Your task to perform on an android device: empty trash in google photos Image 0: 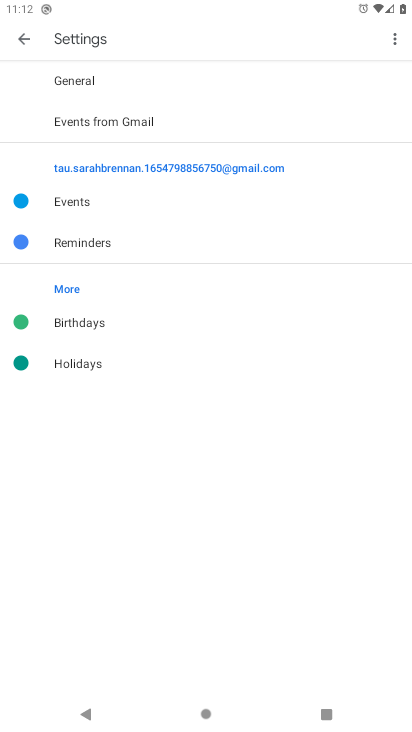
Step 0: press home button
Your task to perform on an android device: empty trash in google photos Image 1: 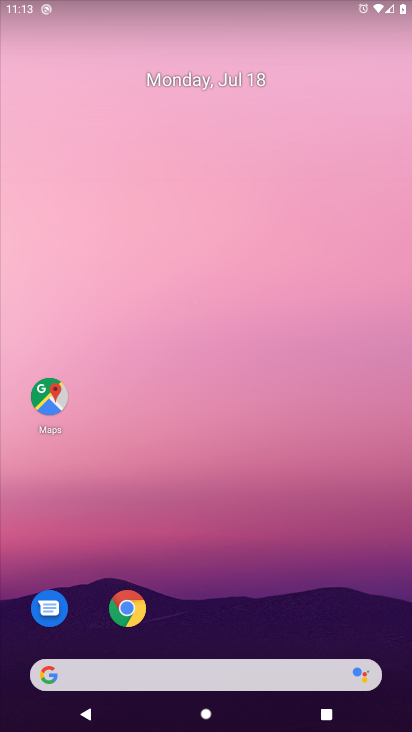
Step 1: drag from (71, 683) to (237, 13)
Your task to perform on an android device: empty trash in google photos Image 2: 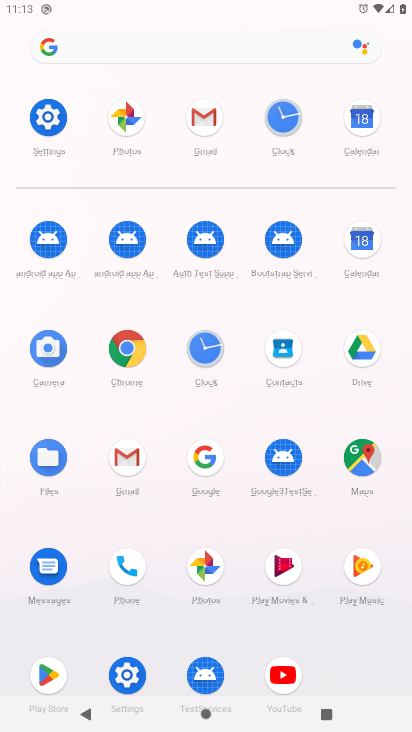
Step 2: drag from (226, 546) to (201, 580)
Your task to perform on an android device: empty trash in google photos Image 3: 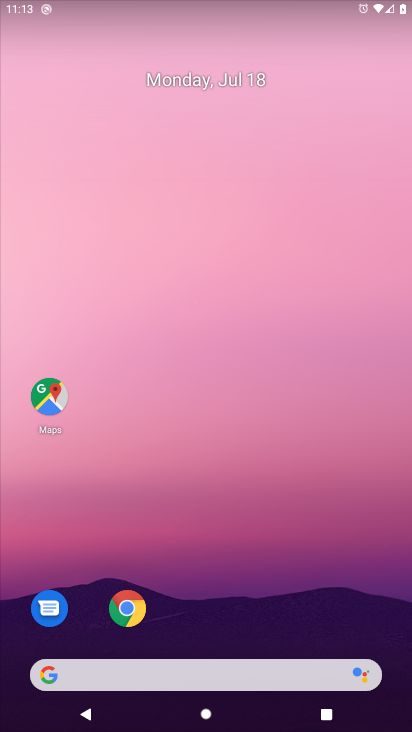
Step 3: drag from (62, 628) to (159, 130)
Your task to perform on an android device: empty trash in google photos Image 4: 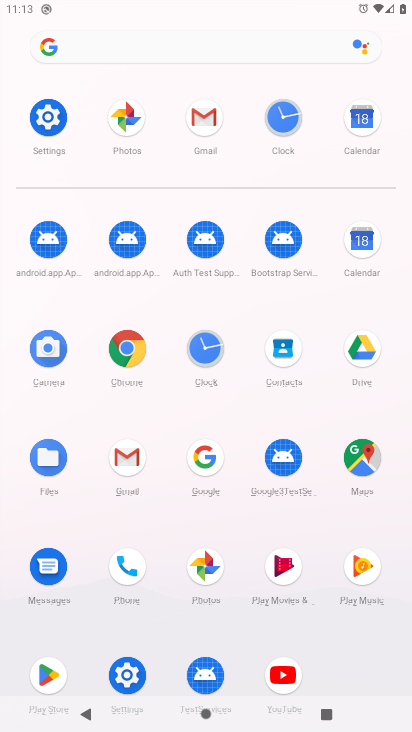
Step 4: click (220, 561)
Your task to perform on an android device: empty trash in google photos Image 5: 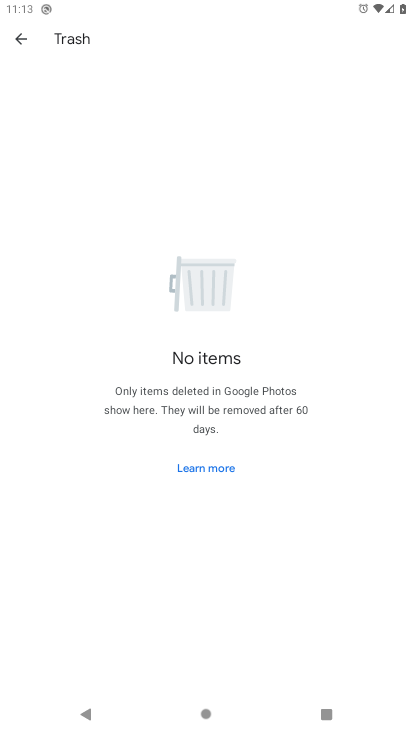
Step 5: task complete